Your task to perform on an android device: change notification settings in the gmail app Image 0: 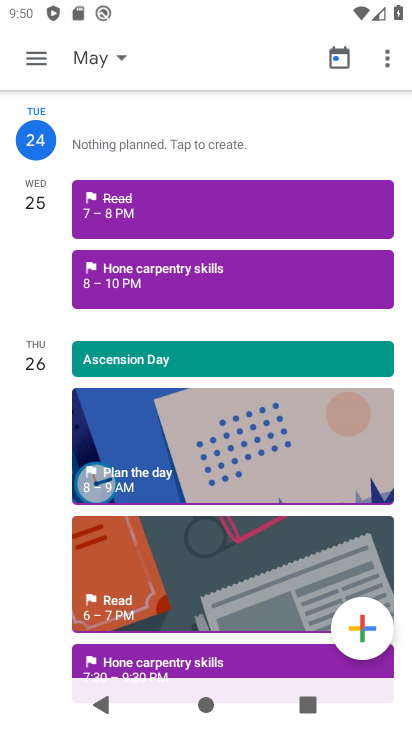
Step 0: press home button
Your task to perform on an android device: change notification settings in the gmail app Image 1: 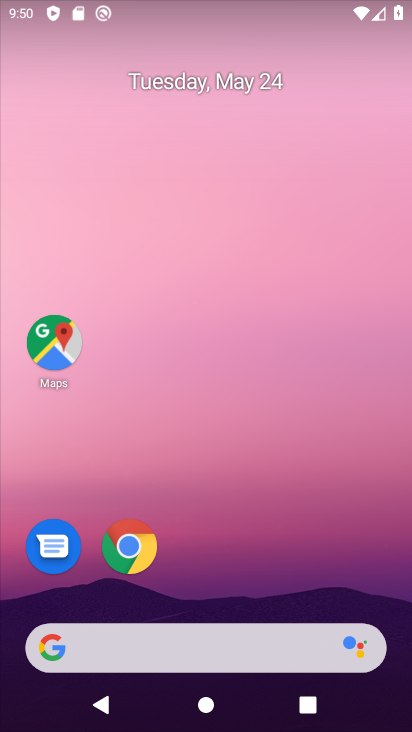
Step 1: drag from (241, 590) to (196, 60)
Your task to perform on an android device: change notification settings in the gmail app Image 2: 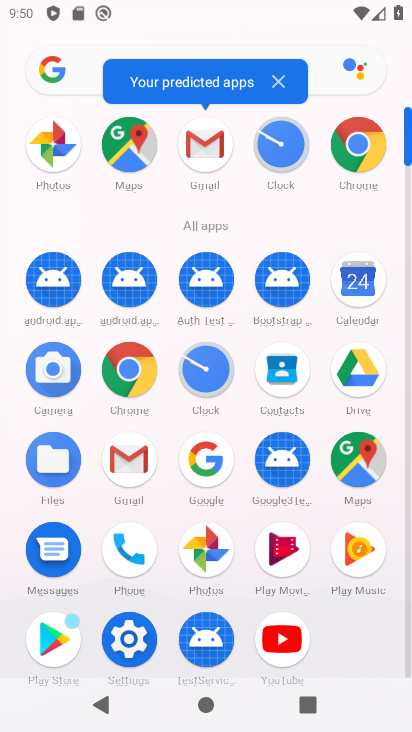
Step 2: click (208, 146)
Your task to perform on an android device: change notification settings in the gmail app Image 3: 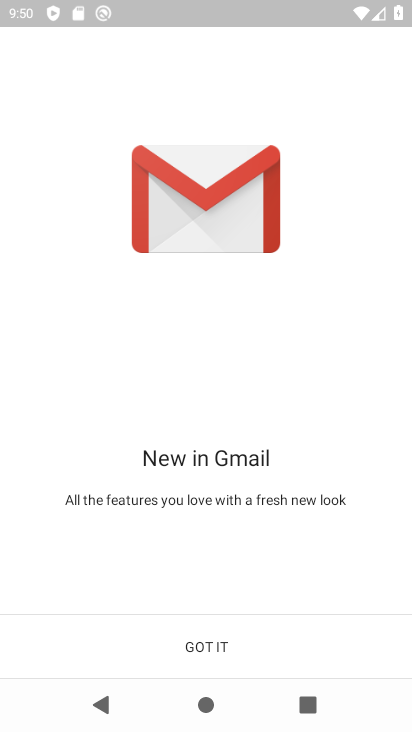
Step 3: click (217, 641)
Your task to perform on an android device: change notification settings in the gmail app Image 4: 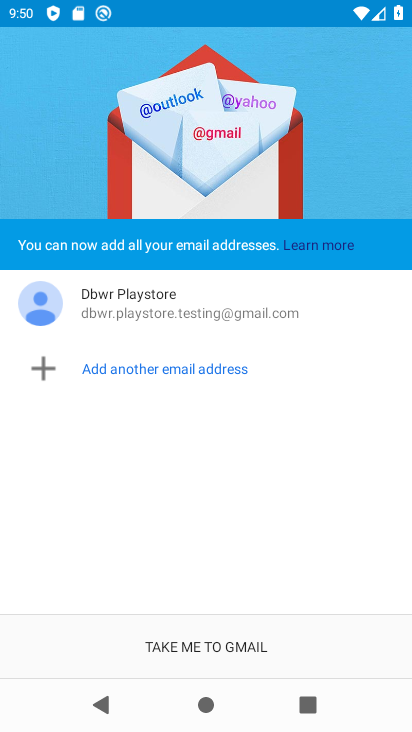
Step 4: click (217, 641)
Your task to perform on an android device: change notification settings in the gmail app Image 5: 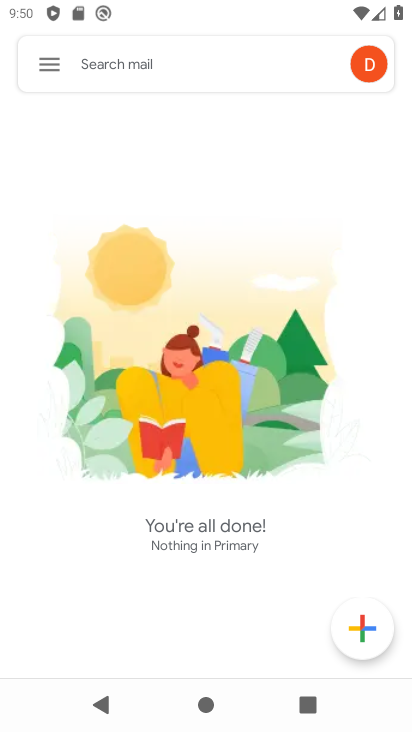
Step 5: click (50, 69)
Your task to perform on an android device: change notification settings in the gmail app Image 6: 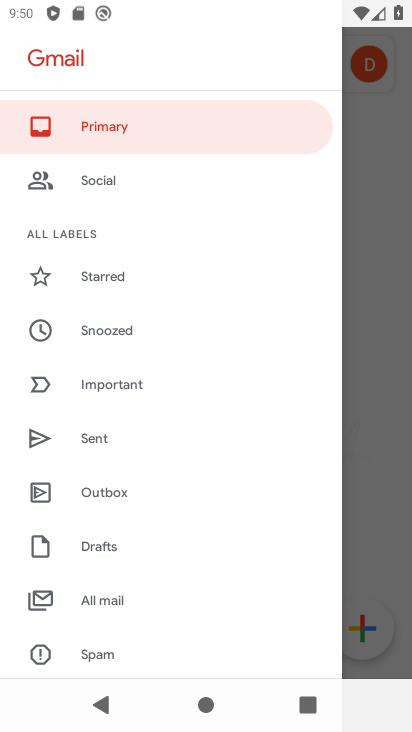
Step 6: drag from (118, 647) to (86, 16)
Your task to perform on an android device: change notification settings in the gmail app Image 7: 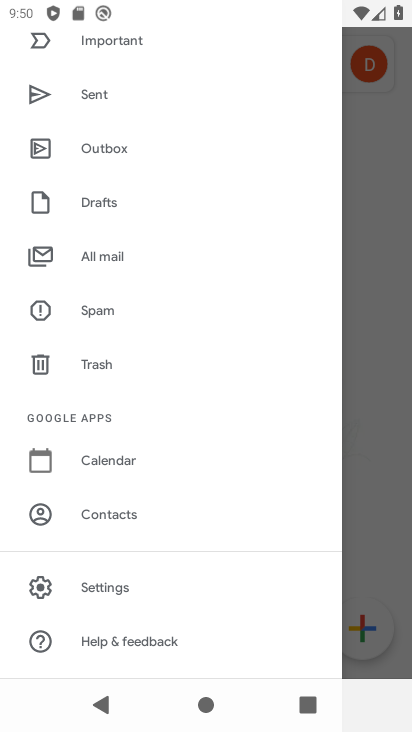
Step 7: click (109, 588)
Your task to perform on an android device: change notification settings in the gmail app Image 8: 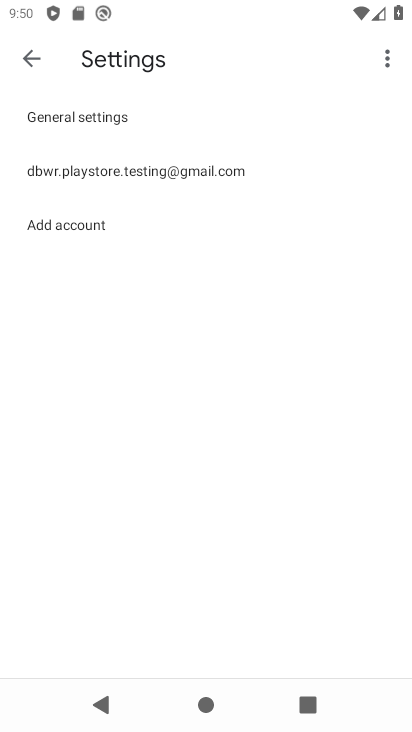
Step 8: click (160, 176)
Your task to perform on an android device: change notification settings in the gmail app Image 9: 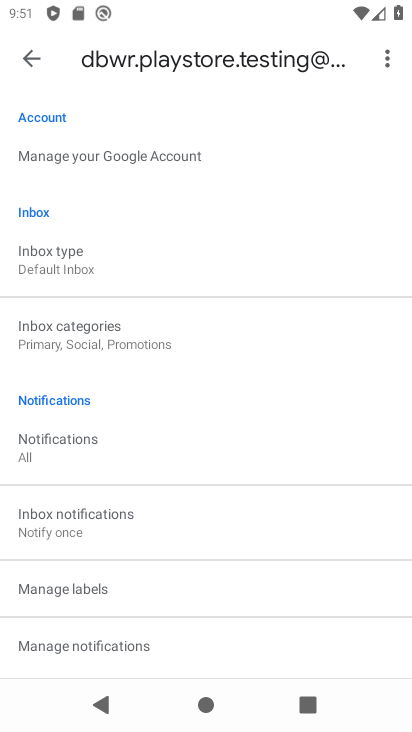
Step 9: click (132, 658)
Your task to perform on an android device: change notification settings in the gmail app Image 10: 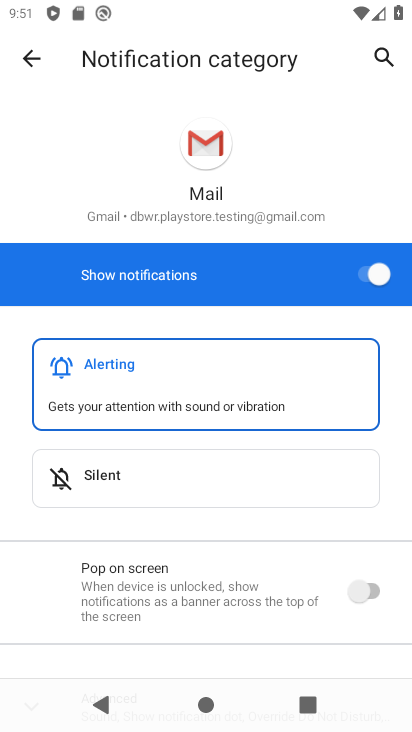
Step 10: click (216, 489)
Your task to perform on an android device: change notification settings in the gmail app Image 11: 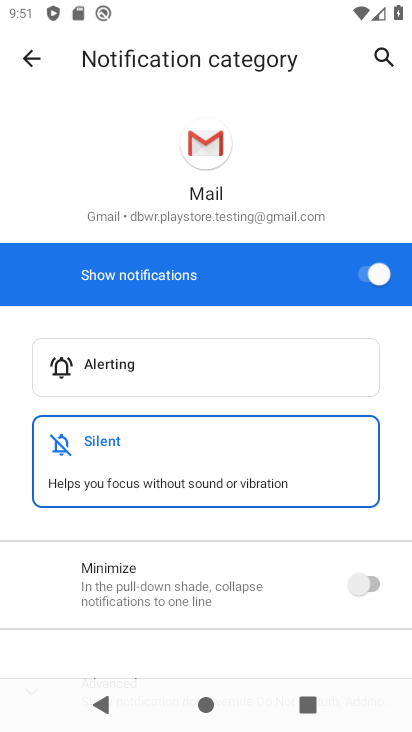
Step 11: drag from (271, 582) to (222, 303)
Your task to perform on an android device: change notification settings in the gmail app Image 12: 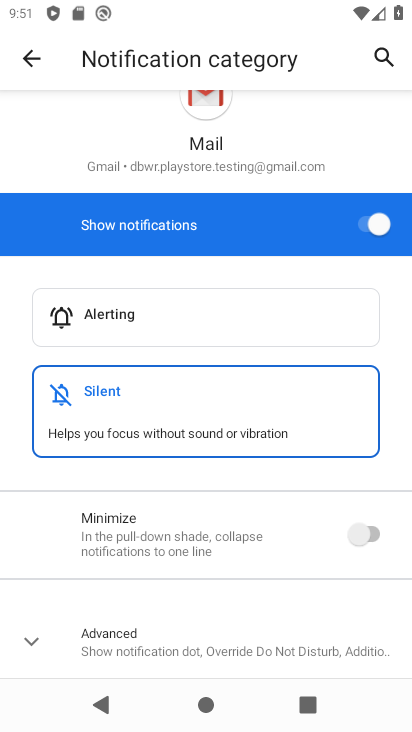
Step 12: click (371, 533)
Your task to perform on an android device: change notification settings in the gmail app Image 13: 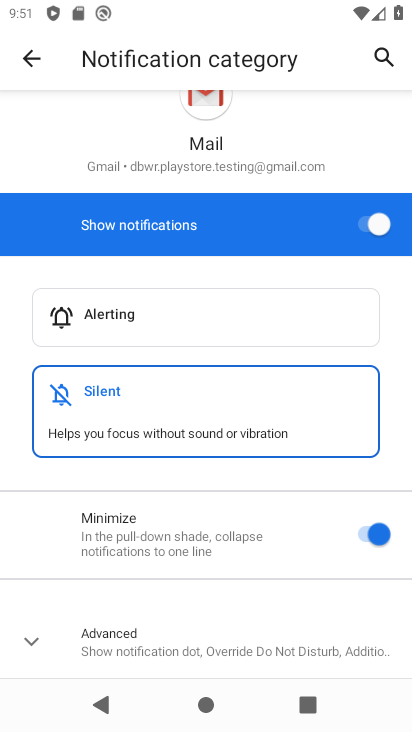
Step 13: task complete